Your task to perform on an android device: open chrome privacy settings Image 0: 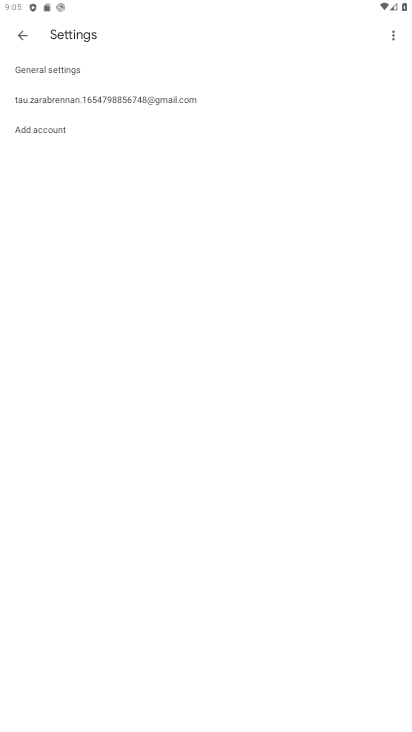
Step 0: press home button
Your task to perform on an android device: open chrome privacy settings Image 1: 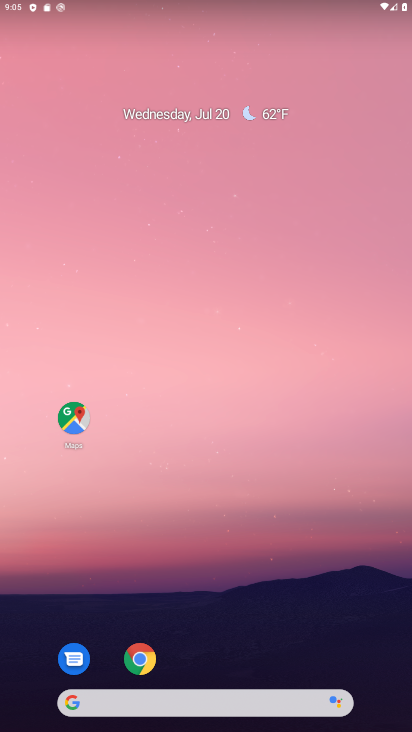
Step 1: drag from (186, 677) to (56, 56)
Your task to perform on an android device: open chrome privacy settings Image 2: 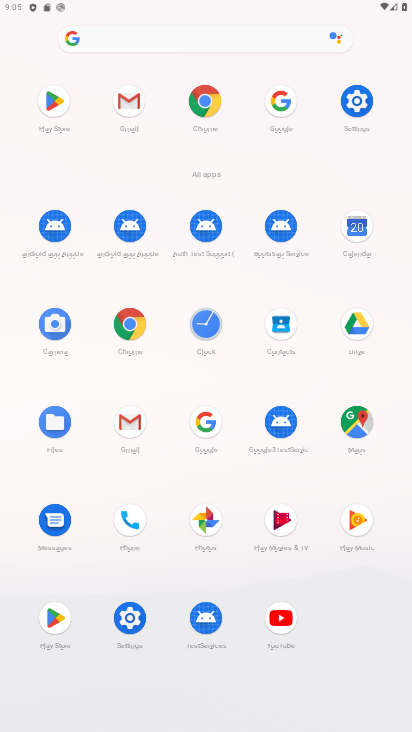
Step 2: click (138, 334)
Your task to perform on an android device: open chrome privacy settings Image 3: 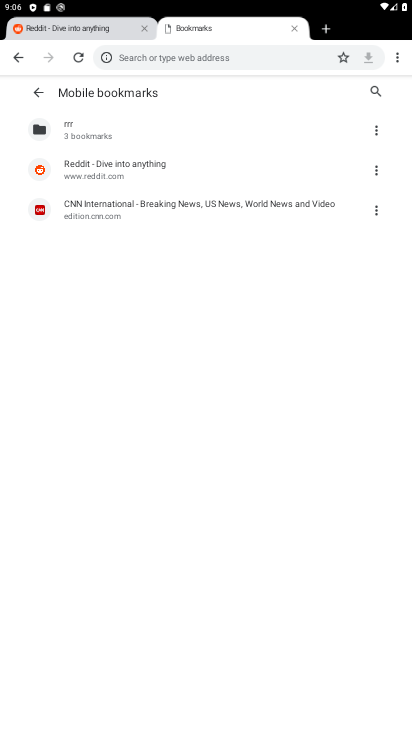
Step 3: click (394, 59)
Your task to perform on an android device: open chrome privacy settings Image 4: 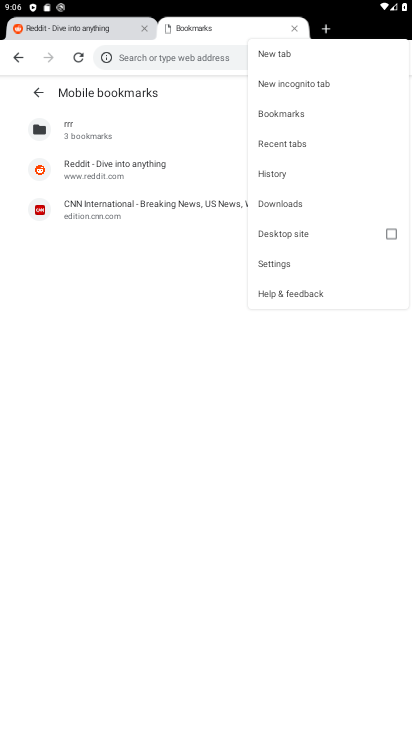
Step 4: click (271, 263)
Your task to perform on an android device: open chrome privacy settings Image 5: 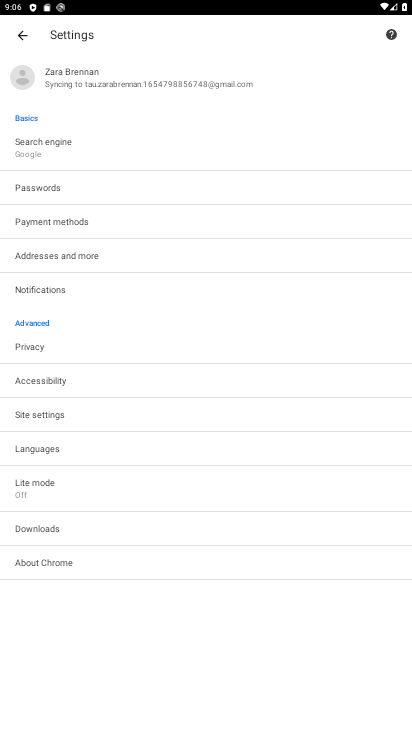
Step 5: click (38, 341)
Your task to perform on an android device: open chrome privacy settings Image 6: 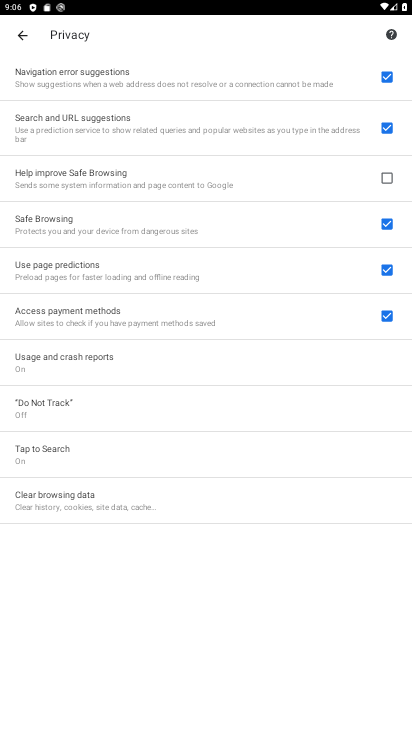
Step 6: task complete